Your task to perform on an android device: Search for pizza restaurants on Maps Image 0: 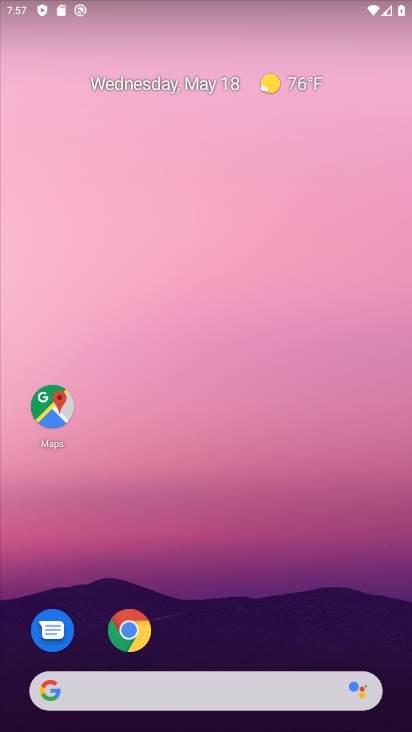
Step 0: click (64, 405)
Your task to perform on an android device: Search for pizza restaurants on Maps Image 1: 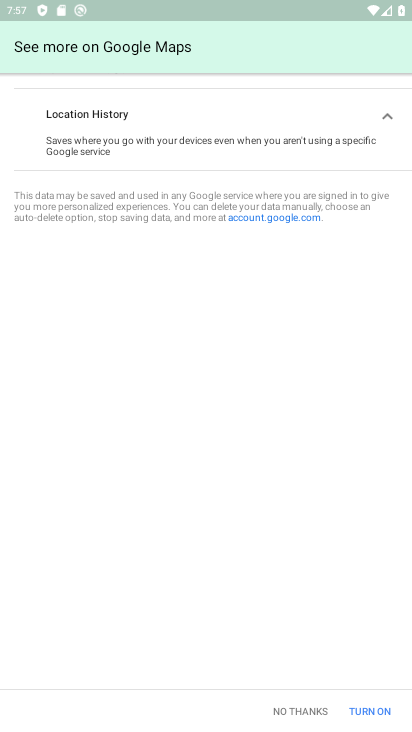
Step 1: press back button
Your task to perform on an android device: Search for pizza restaurants on Maps Image 2: 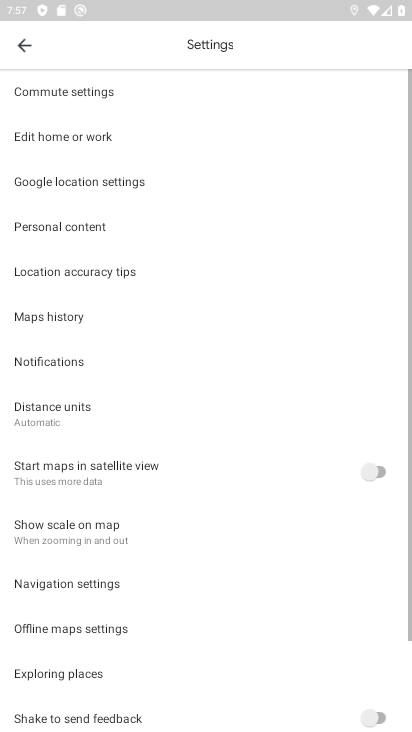
Step 2: click (31, 47)
Your task to perform on an android device: Search for pizza restaurants on Maps Image 3: 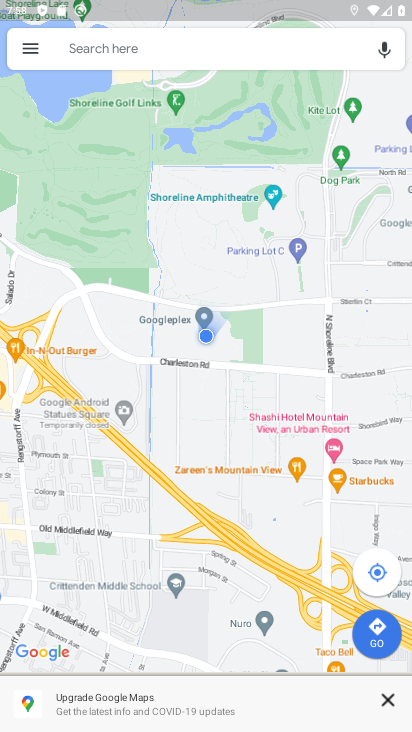
Step 3: click (192, 50)
Your task to perform on an android device: Search for pizza restaurants on Maps Image 4: 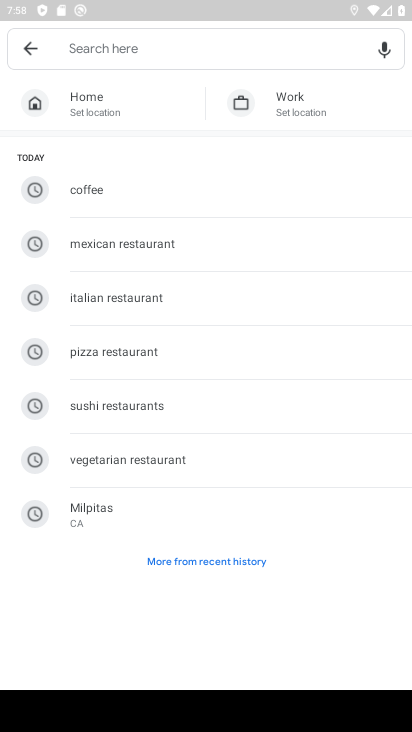
Step 4: click (130, 356)
Your task to perform on an android device: Search for pizza restaurants on Maps Image 5: 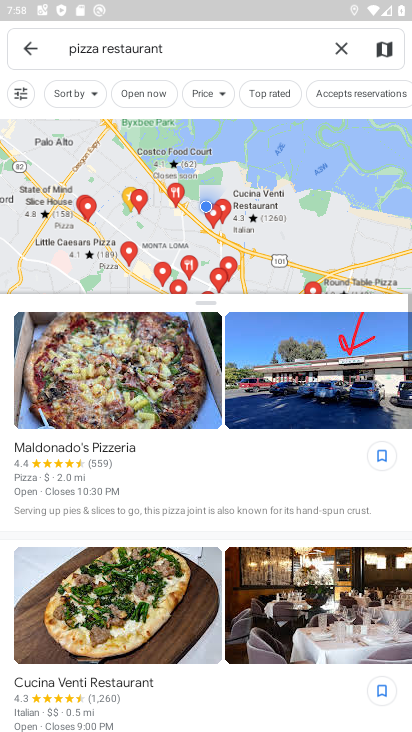
Step 5: task complete